Your task to perform on an android device: What's the weather today? Image 0: 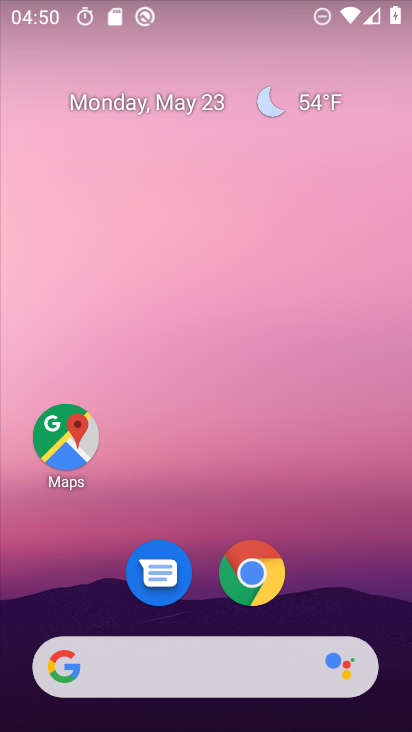
Step 0: click (312, 97)
Your task to perform on an android device: What's the weather today? Image 1: 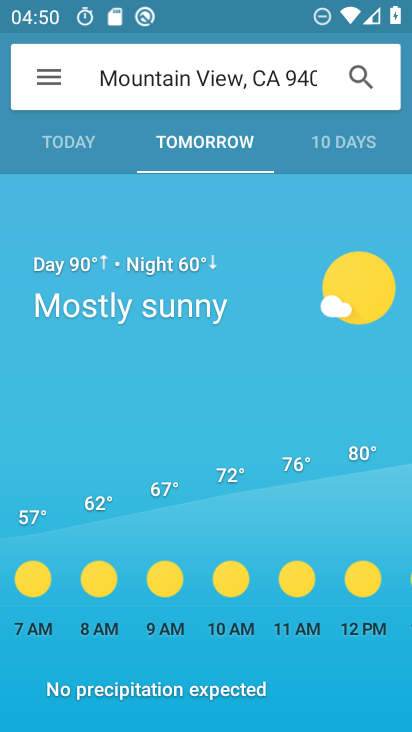
Step 1: click (65, 140)
Your task to perform on an android device: What's the weather today? Image 2: 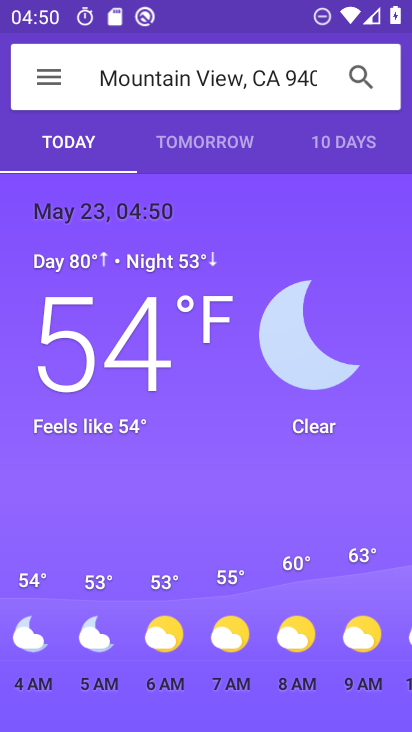
Step 2: task complete